Your task to perform on an android device: set the timer Image 0: 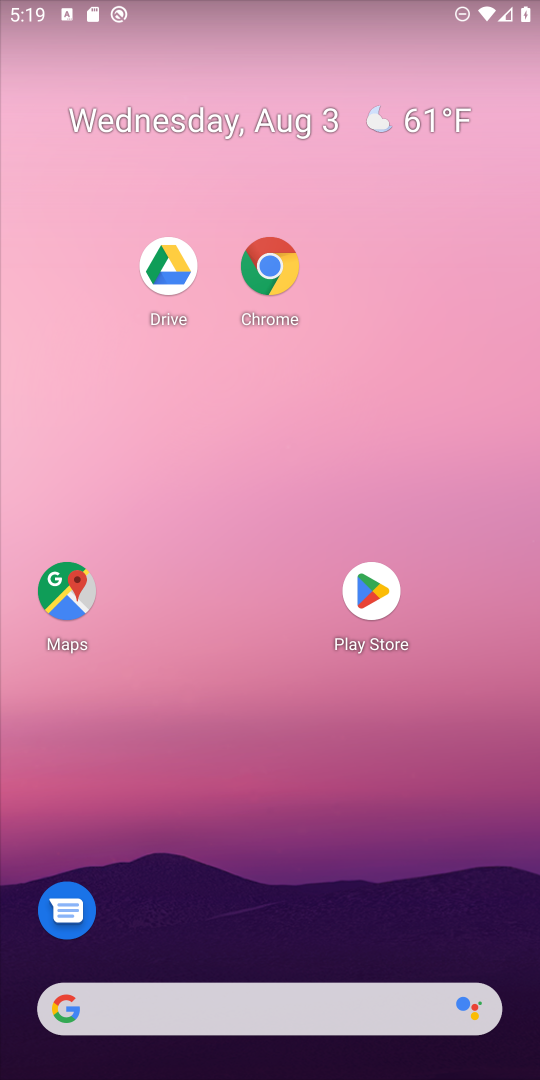
Step 0: drag from (390, 992) to (495, 3)
Your task to perform on an android device: set the timer Image 1: 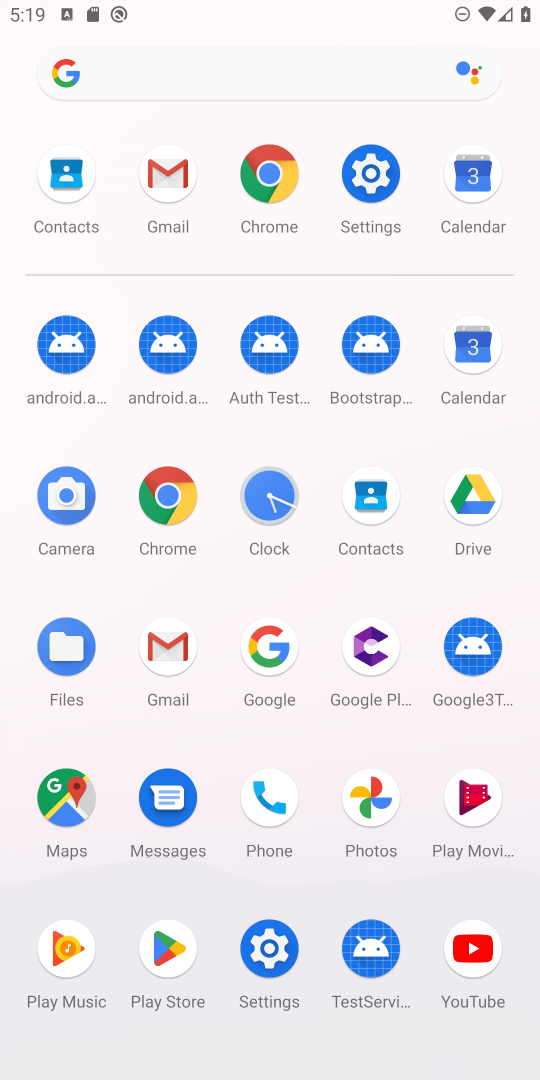
Step 1: click (271, 498)
Your task to perform on an android device: set the timer Image 2: 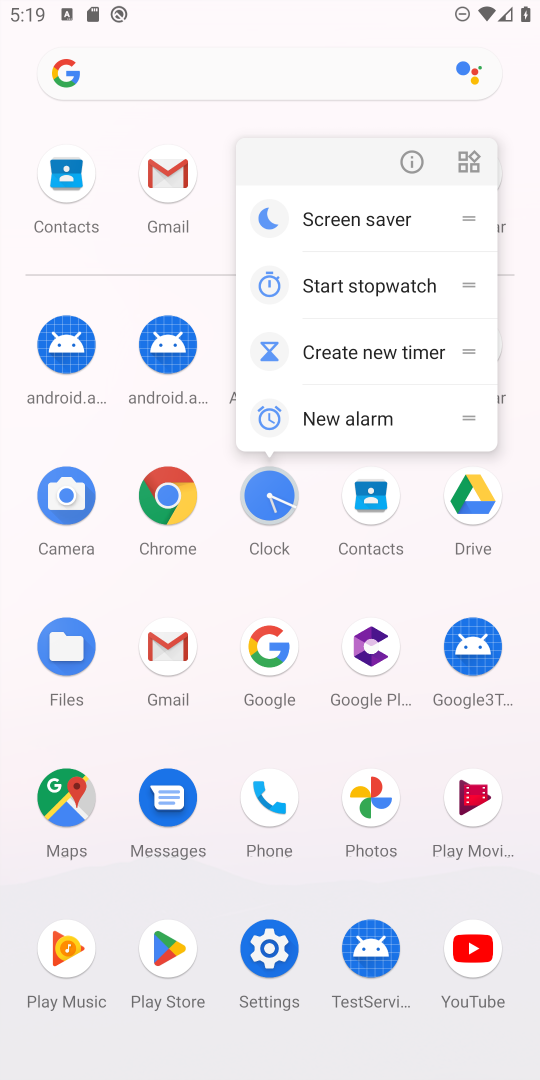
Step 2: click (271, 498)
Your task to perform on an android device: set the timer Image 3: 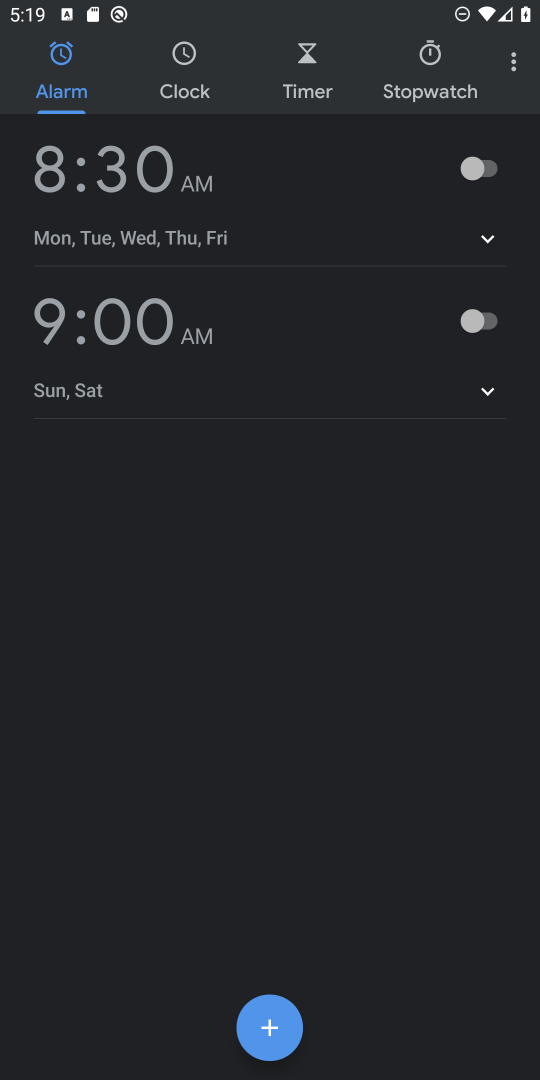
Step 3: click (307, 72)
Your task to perform on an android device: set the timer Image 4: 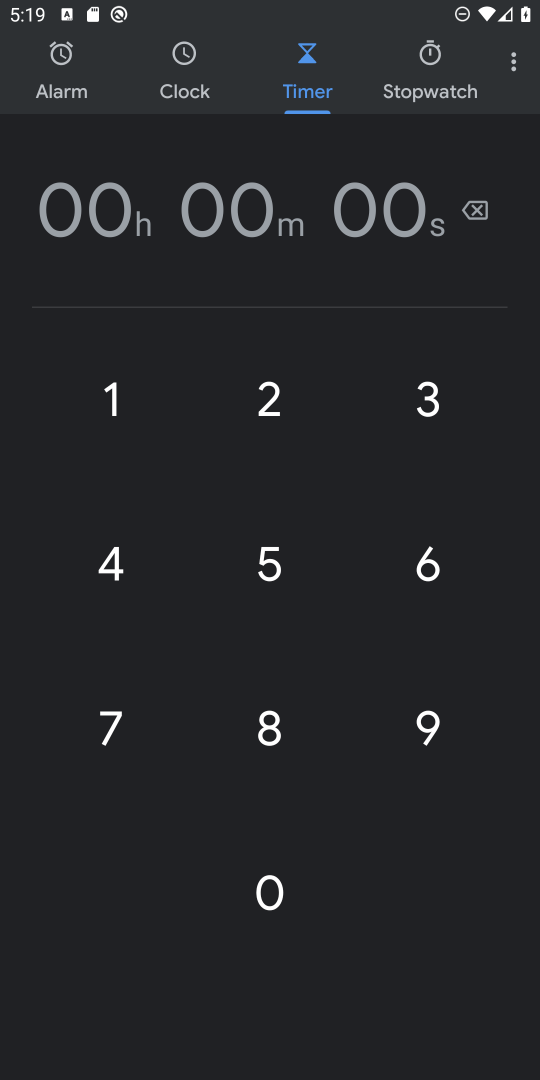
Step 4: click (267, 728)
Your task to perform on an android device: set the timer Image 5: 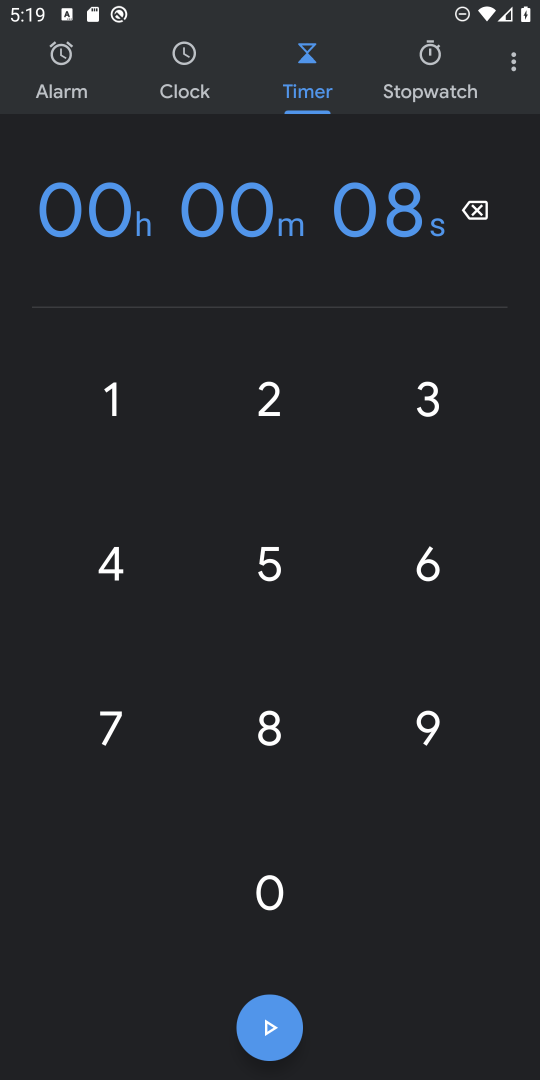
Step 5: click (281, 726)
Your task to perform on an android device: set the timer Image 6: 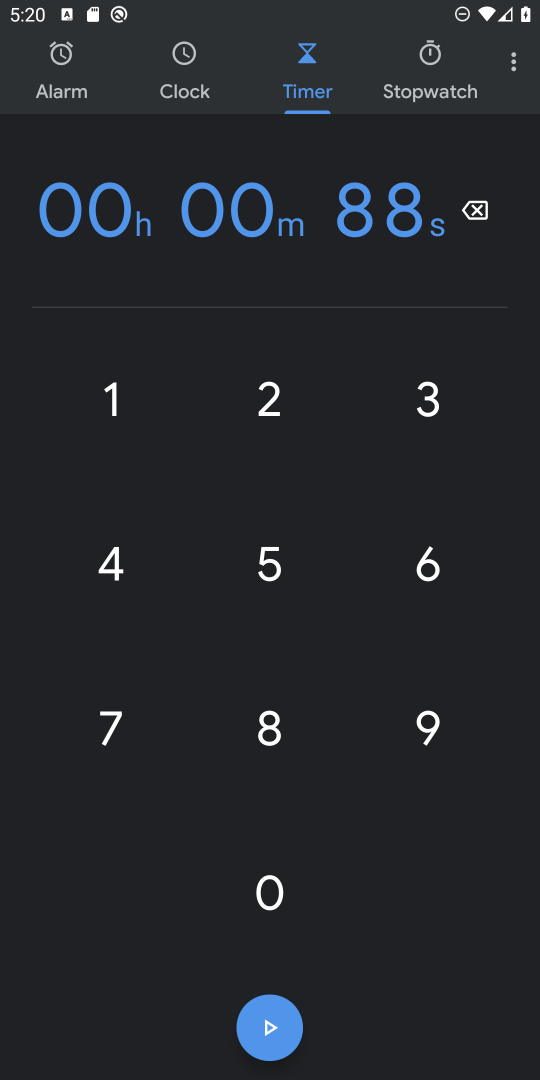
Step 6: click (259, 1020)
Your task to perform on an android device: set the timer Image 7: 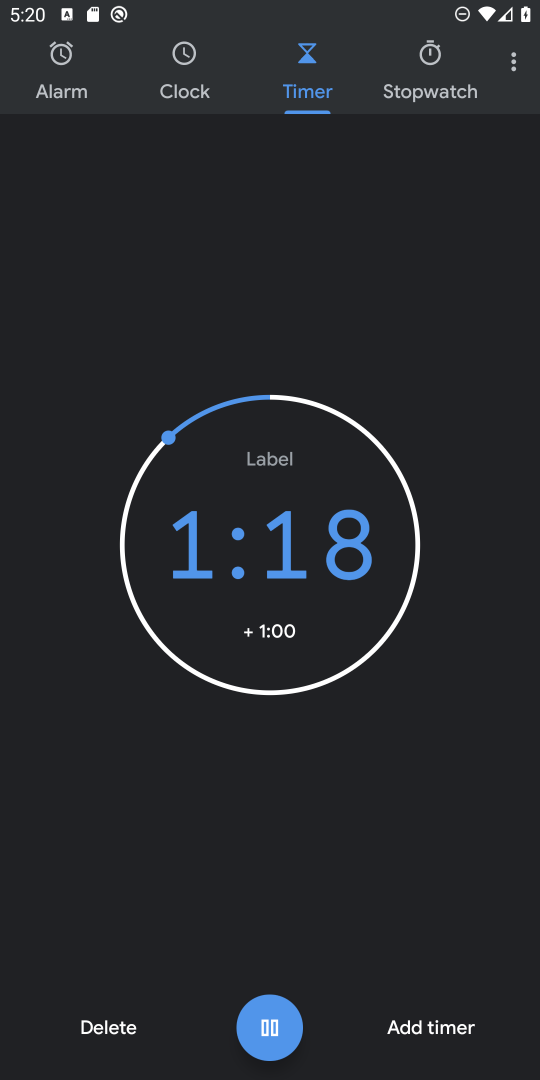
Step 7: task complete